Your task to perform on an android device: Open Wikipedia Image 0: 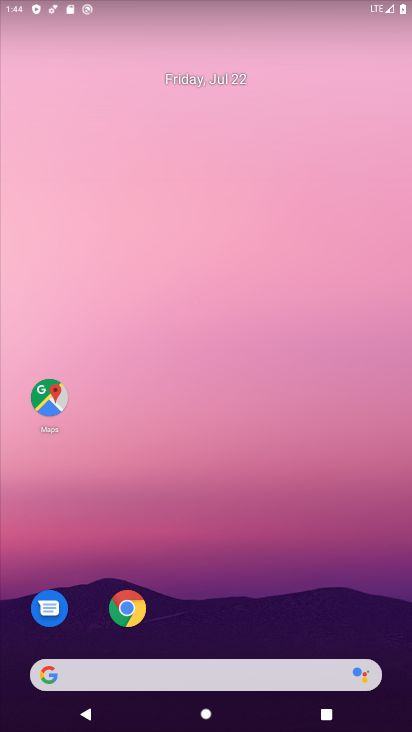
Step 0: drag from (382, 658) to (275, 109)
Your task to perform on an android device: Open Wikipedia Image 1: 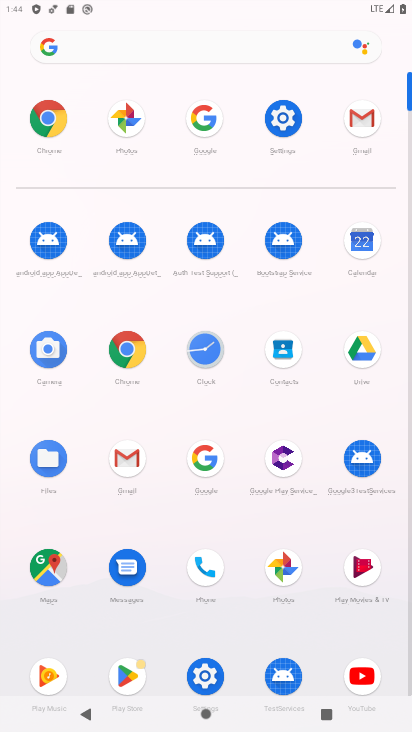
Step 1: click (202, 672)
Your task to perform on an android device: Open Wikipedia Image 2: 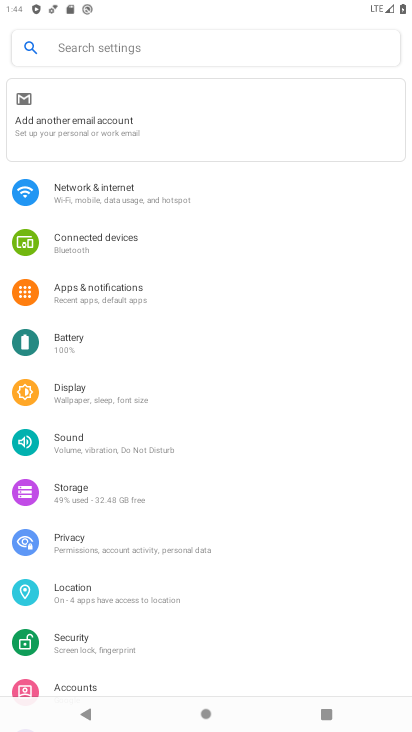
Step 2: press home button
Your task to perform on an android device: Open Wikipedia Image 3: 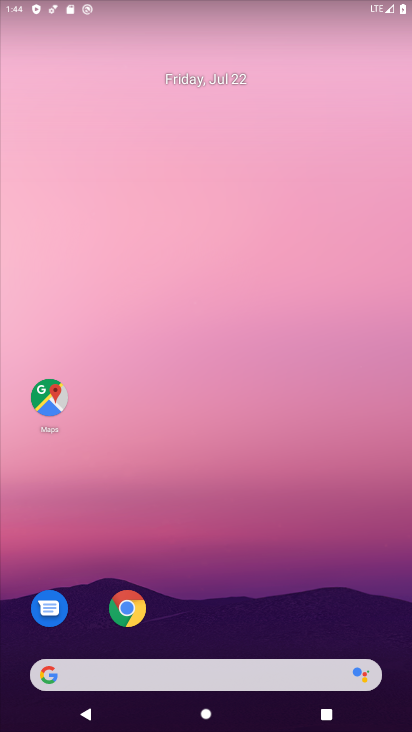
Step 3: click (128, 608)
Your task to perform on an android device: Open Wikipedia Image 4: 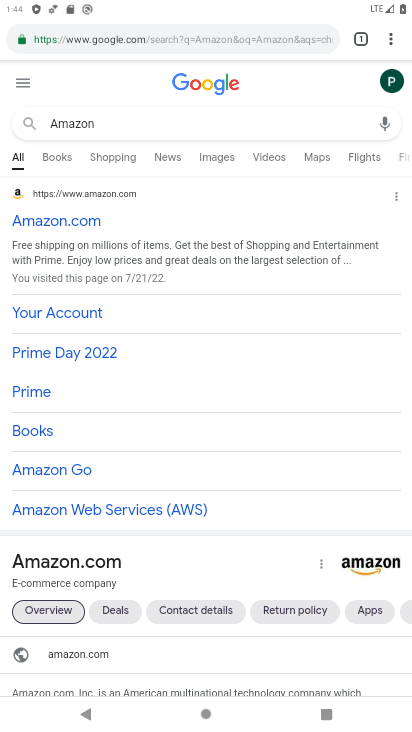
Step 4: click (305, 40)
Your task to perform on an android device: Open Wikipedia Image 5: 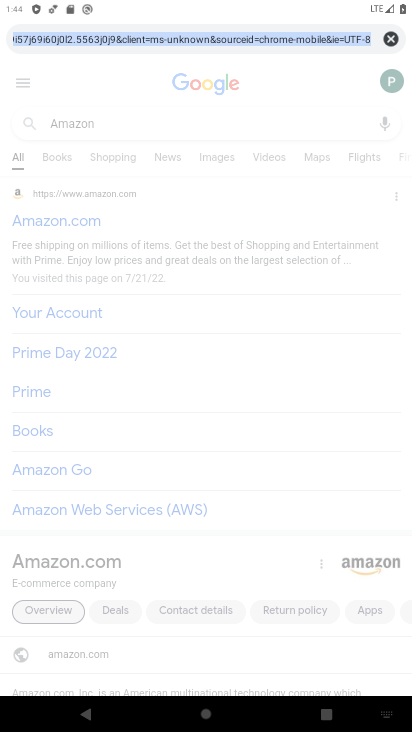
Step 5: click (392, 35)
Your task to perform on an android device: Open Wikipedia Image 6: 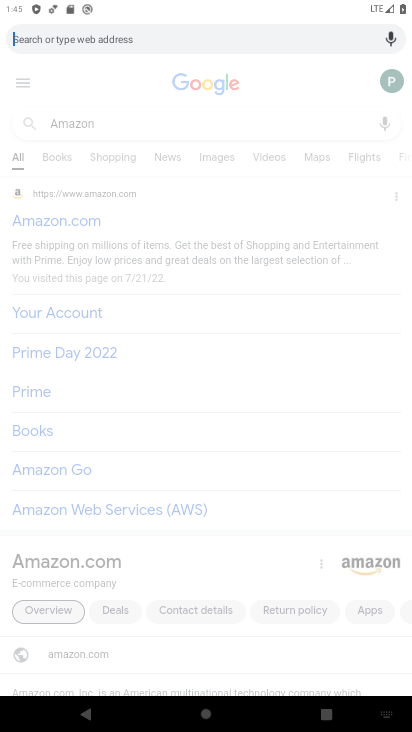
Step 6: type "Wikipedia"
Your task to perform on an android device: Open Wikipedia Image 7: 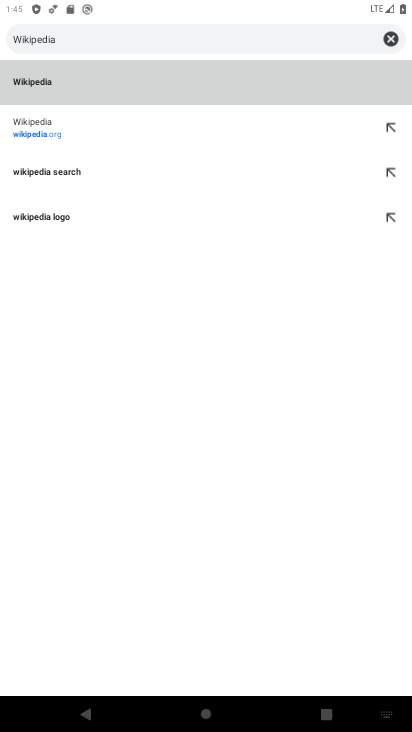
Step 7: click (91, 79)
Your task to perform on an android device: Open Wikipedia Image 8: 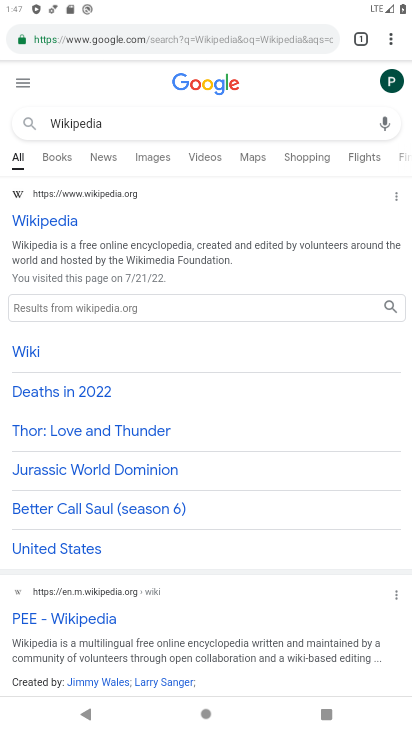
Step 8: task complete